Your task to perform on an android device: Show me popular games on the Play Store Image 0: 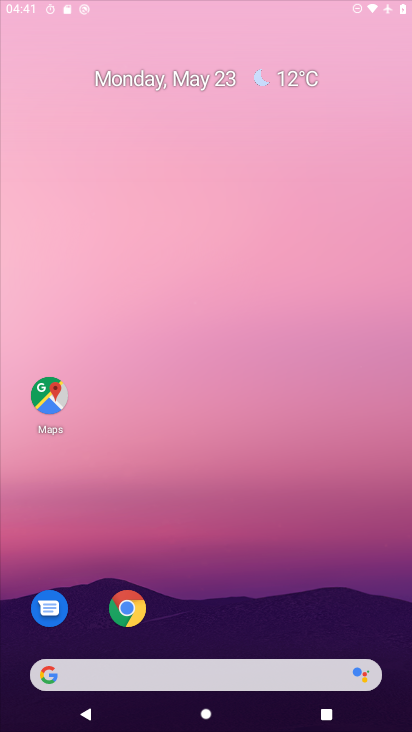
Step 0: click (172, 69)
Your task to perform on an android device: Show me popular games on the Play Store Image 1: 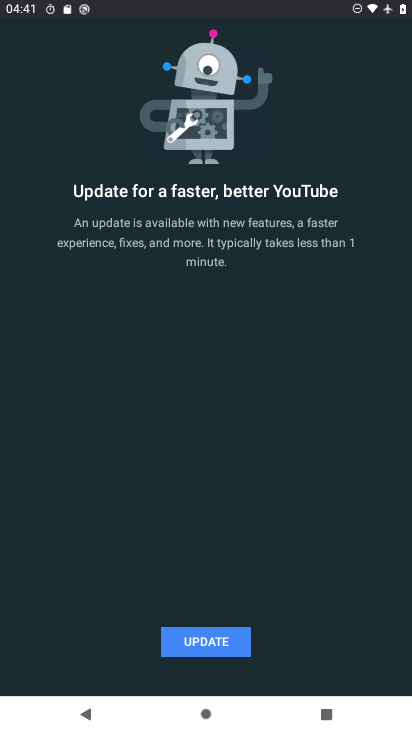
Step 1: press home button
Your task to perform on an android device: Show me popular games on the Play Store Image 2: 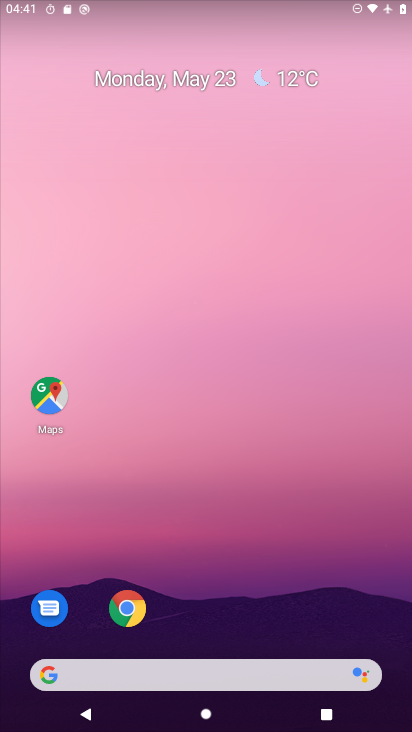
Step 2: drag from (280, 603) to (110, 26)
Your task to perform on an android device: Show me popular games on the Play Store Image 3: 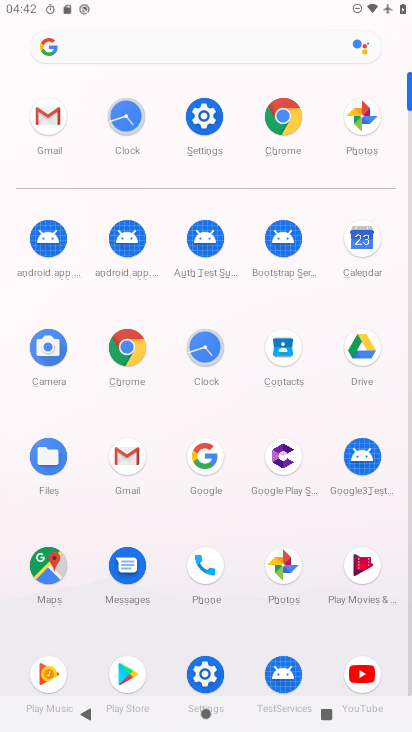
Step 3: click (141, 664)
Your task to perform on an android device: Show me popular games on the Play Store Image 4: 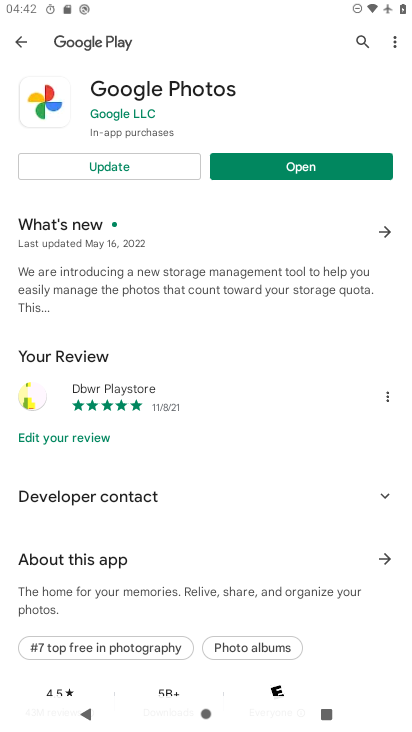
Step 4: click (20, 36)
Your task to perform on an android device: Show me popular games on the Play Store Image 5: 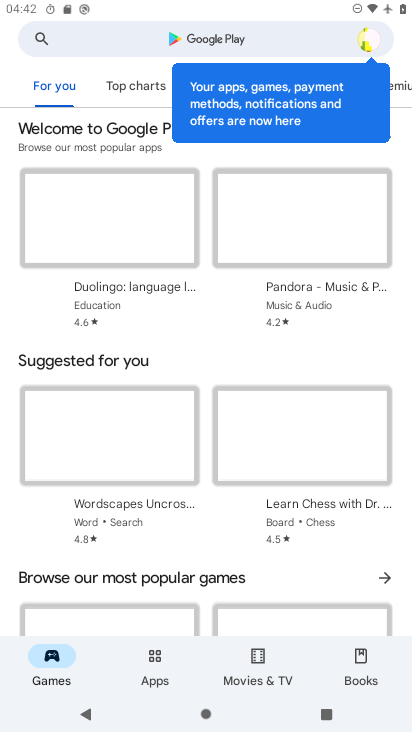
Step 5: click (121, 77)
Your task to perform on an android device: Show me popular games on the Play Store Image 6: 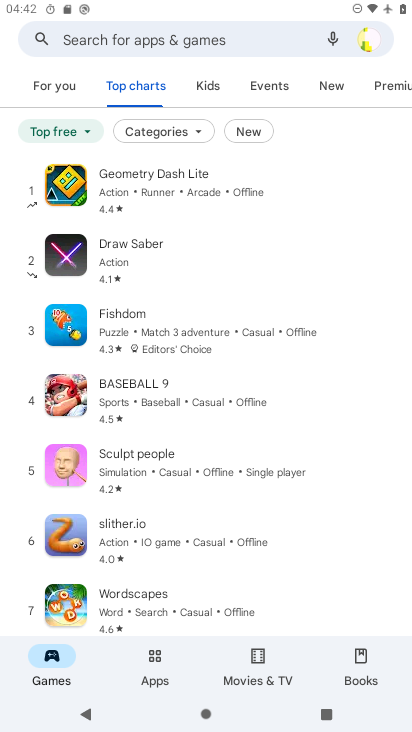
Step 6: task complete